Your task to perform on an android device: Go to calendar. Show me events next week Image 0: 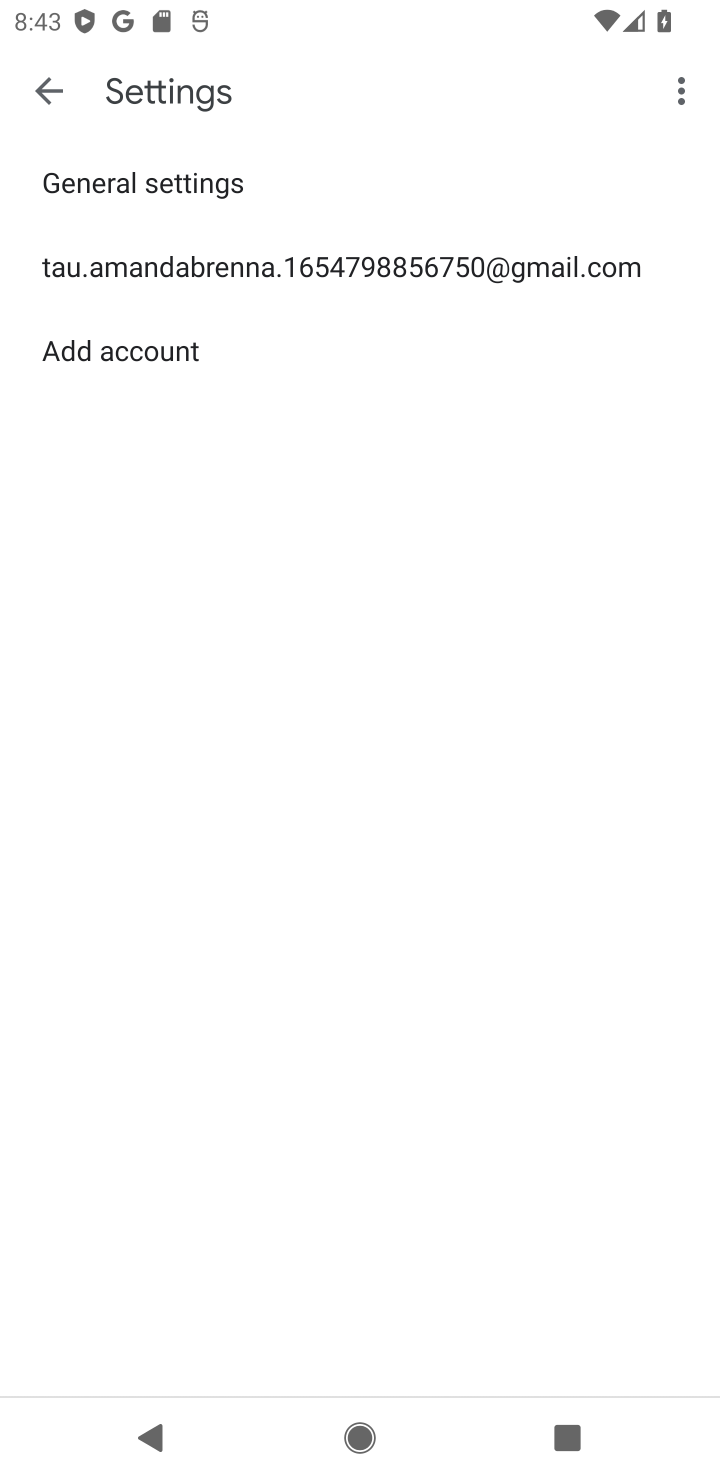
Step 0: press back button
Your task to perform on an android device: Go to calendar. Show me events next week Image 1: 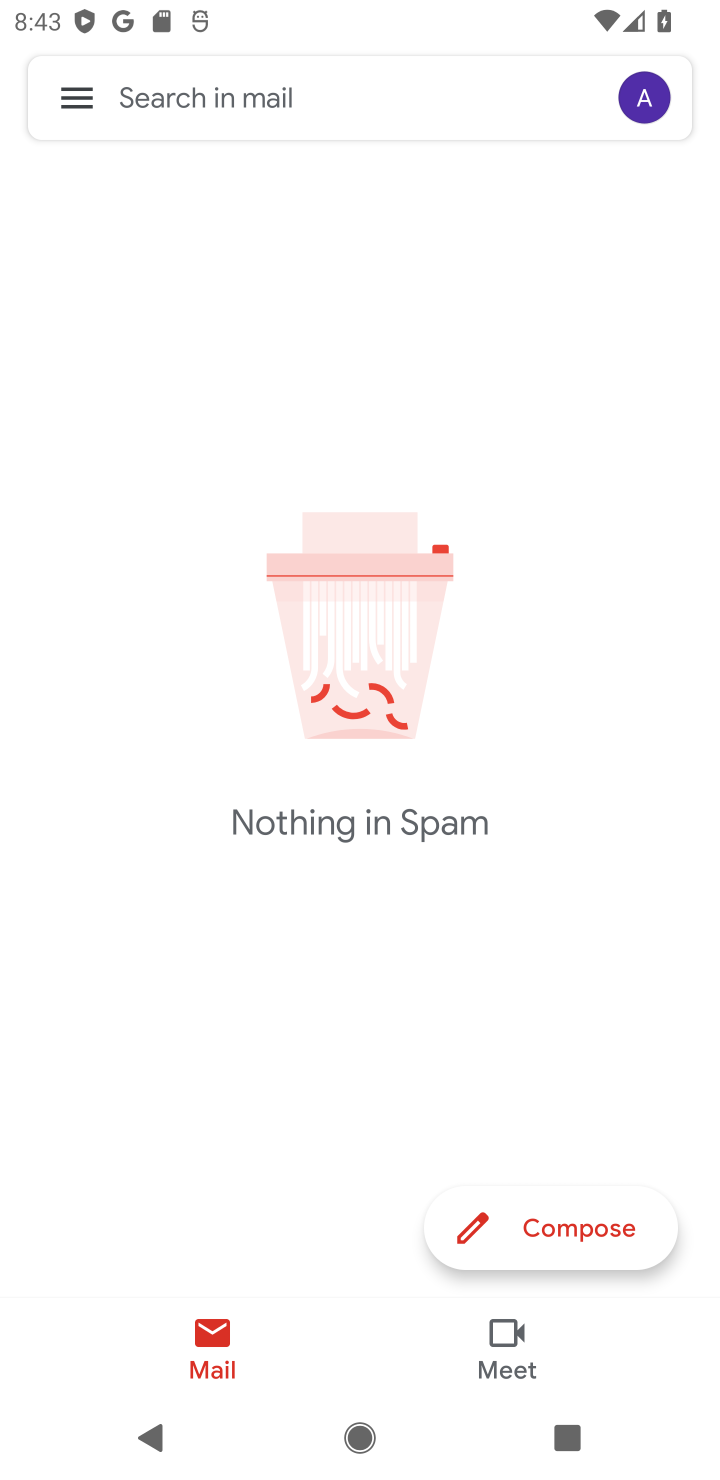
Step 1: press back button
Your task to perform on an android device: Go to calendar. Show me events next week Image 2: 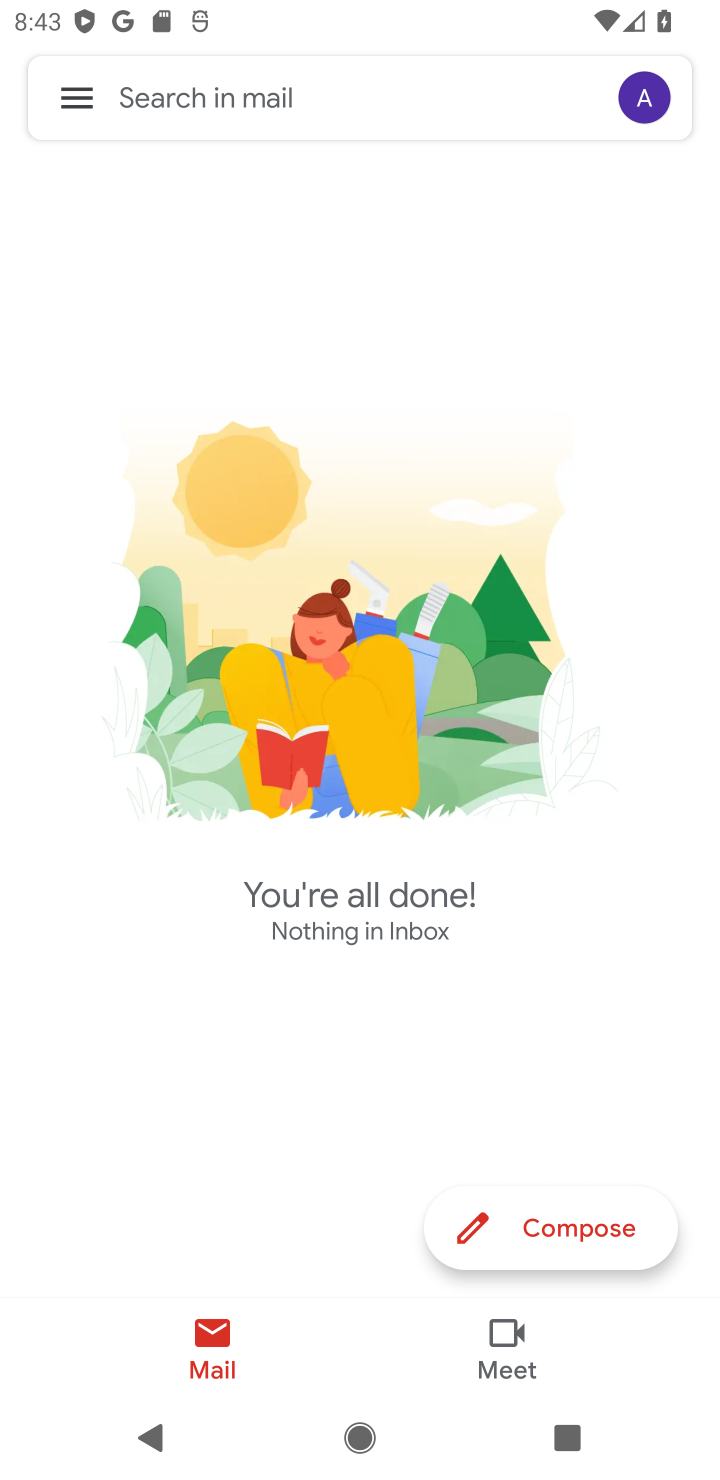
Step 2: press home button
Your task to perform on an android device: Go to calendar. Show me events next week Image 3: 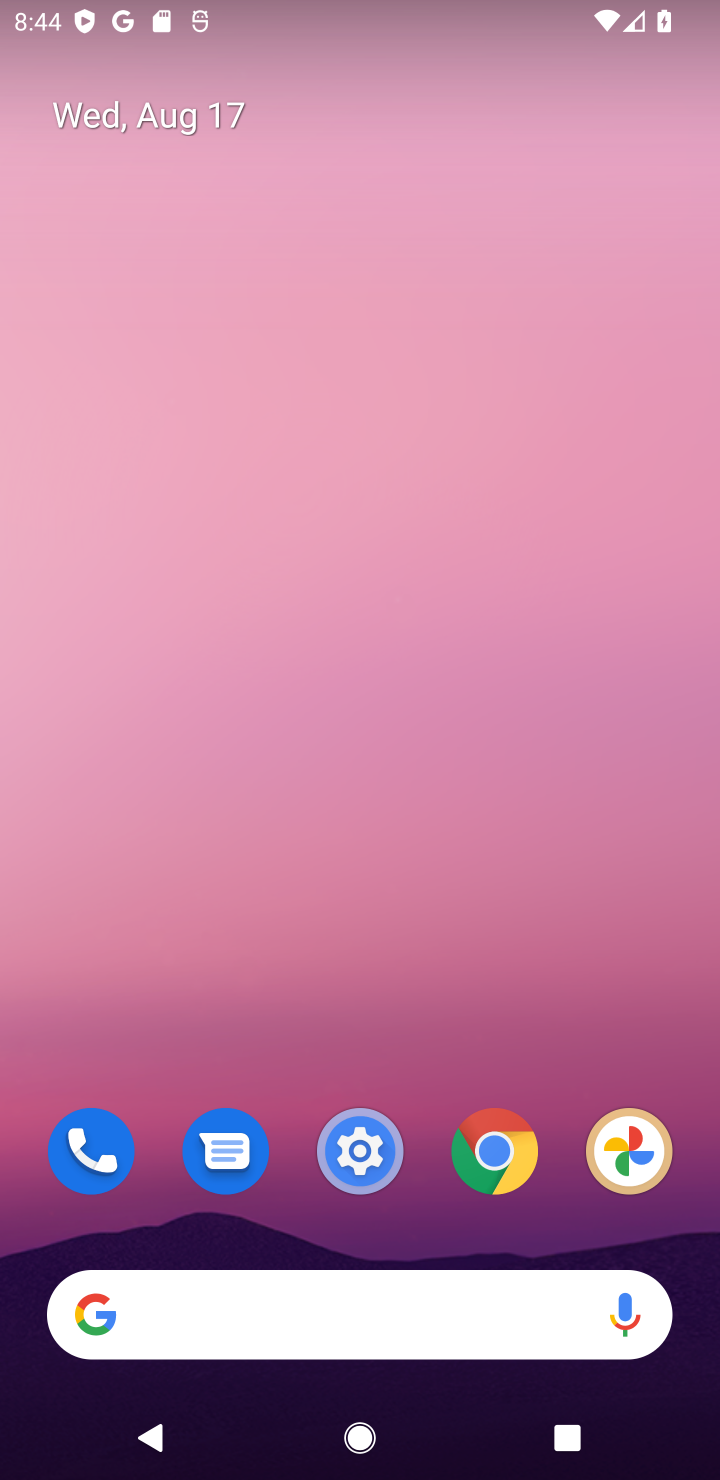
Step 3: drag from (352, 1186) to (351, 212)
Your task to perform on an android device: Go to calendar. Show me events next week Image 4: 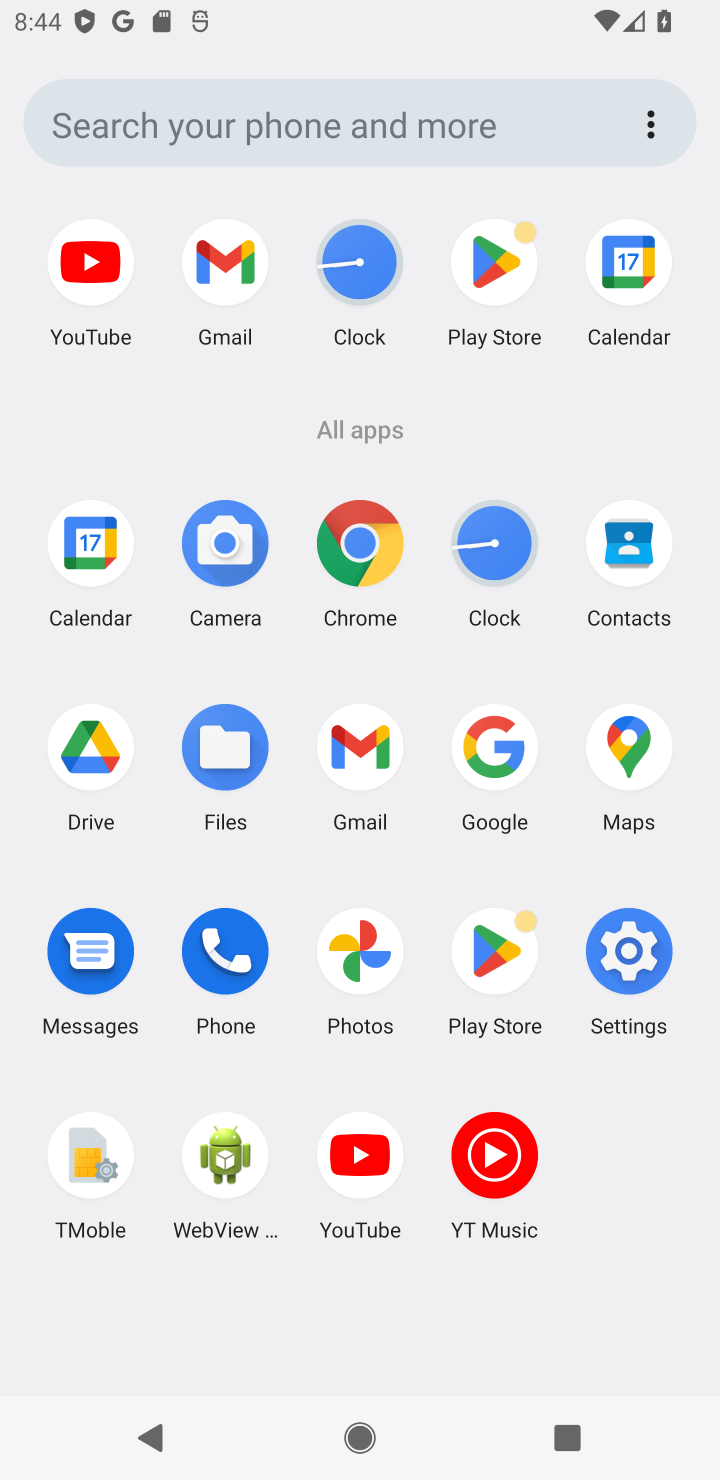
Step 4: click (95, 551)
Your task to perform on an android device: Go to calendar. Show me events next week Image 5: 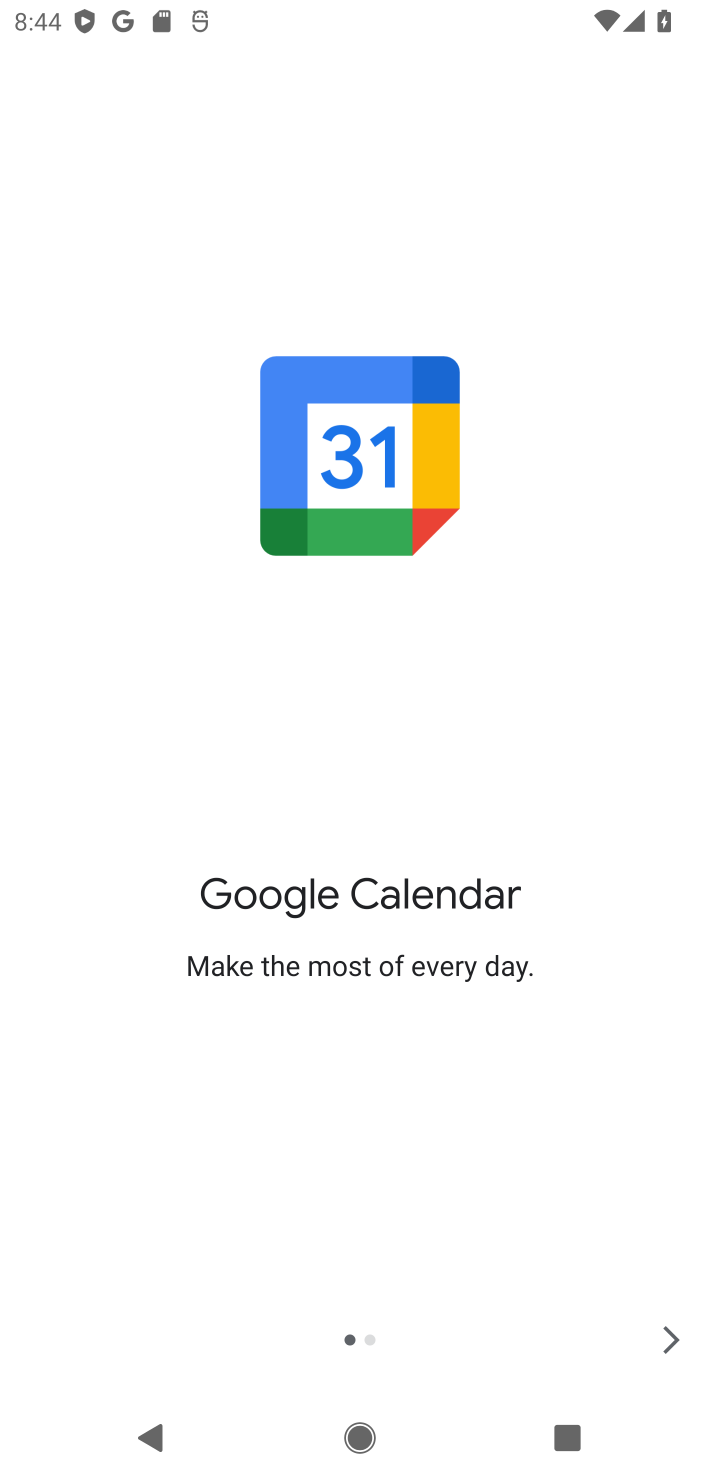
Step 5: click (665, 1347)
Your task to perform on an android device: Go to calendar. Show me events next week Image 6: 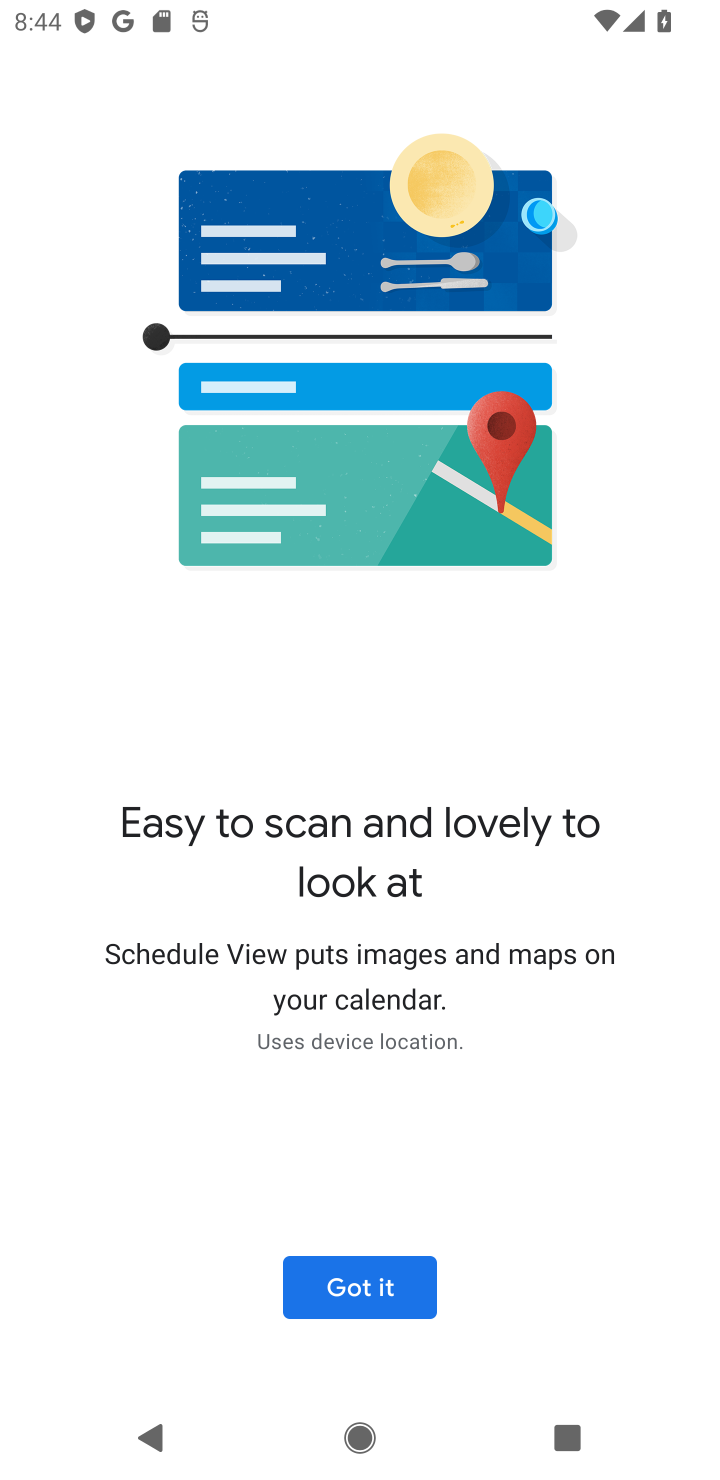
Step 6: click (339, 1300)
Your task to perform on an android device: Go to calendar. Show me events next week Image 7: 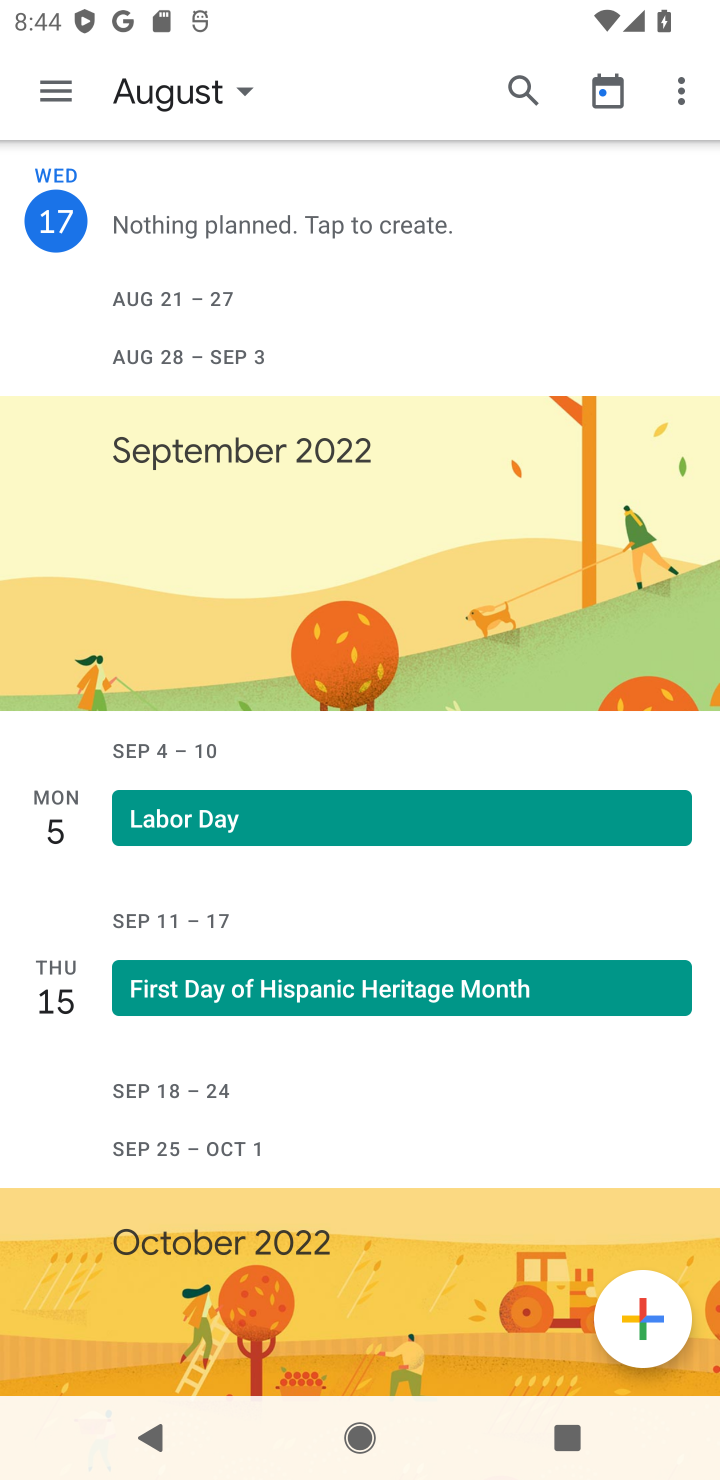
Step 7: click (41, 82)
Your task to perform on an android device: Go to calendar. Show me events next week Image 8: 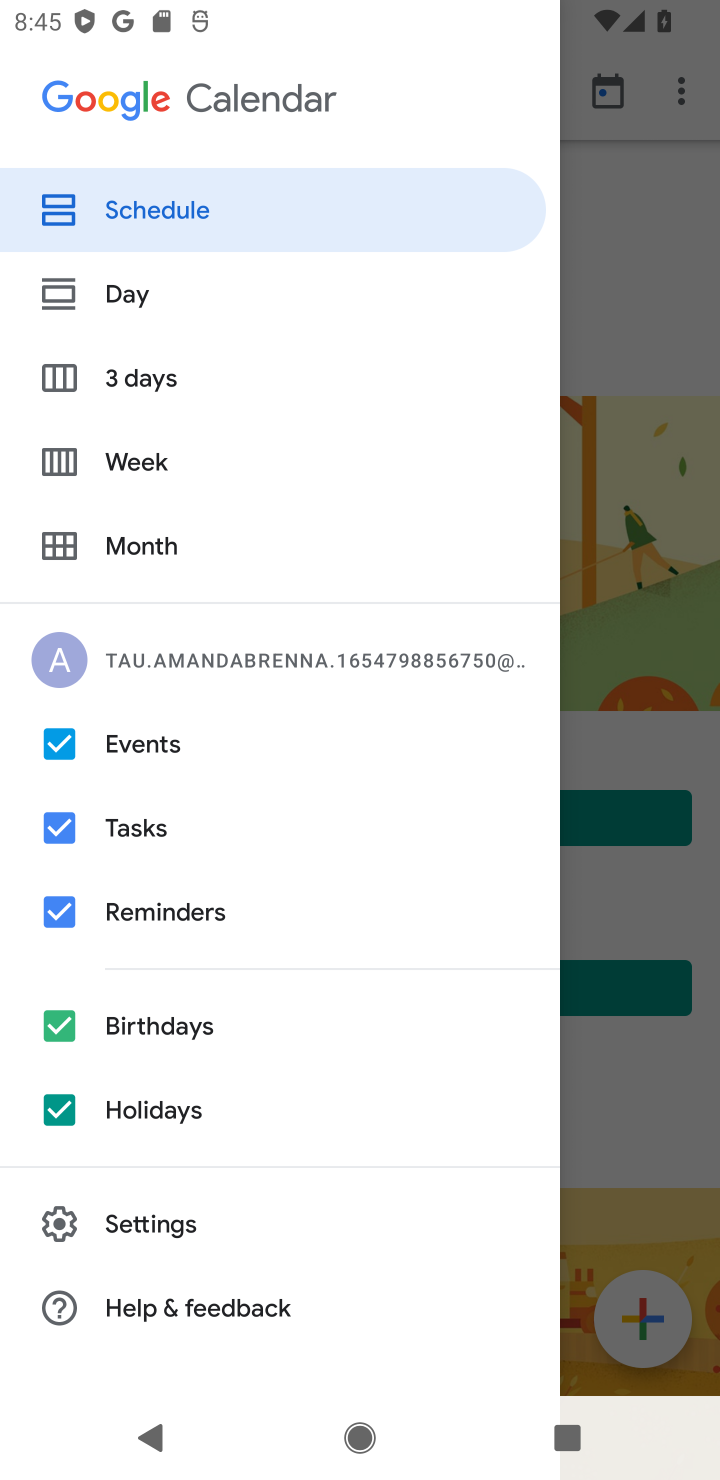
Step 8: click (120, 458)
Your task to perform on an android device: Go to calendar. Show me events next week Image 9: 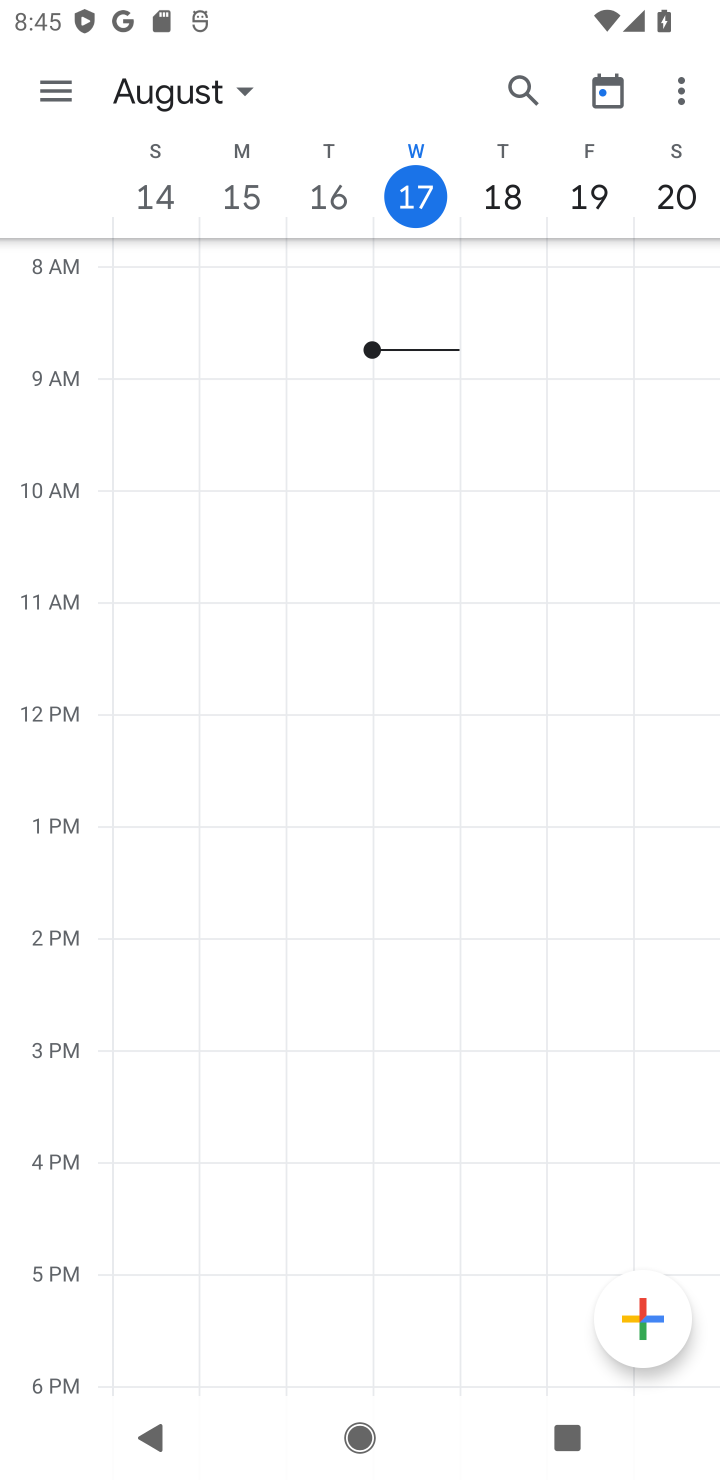
Step 9: click (199, 95)
Your task to perform on an android device: Go to calendar. Show me events next week Image 10: 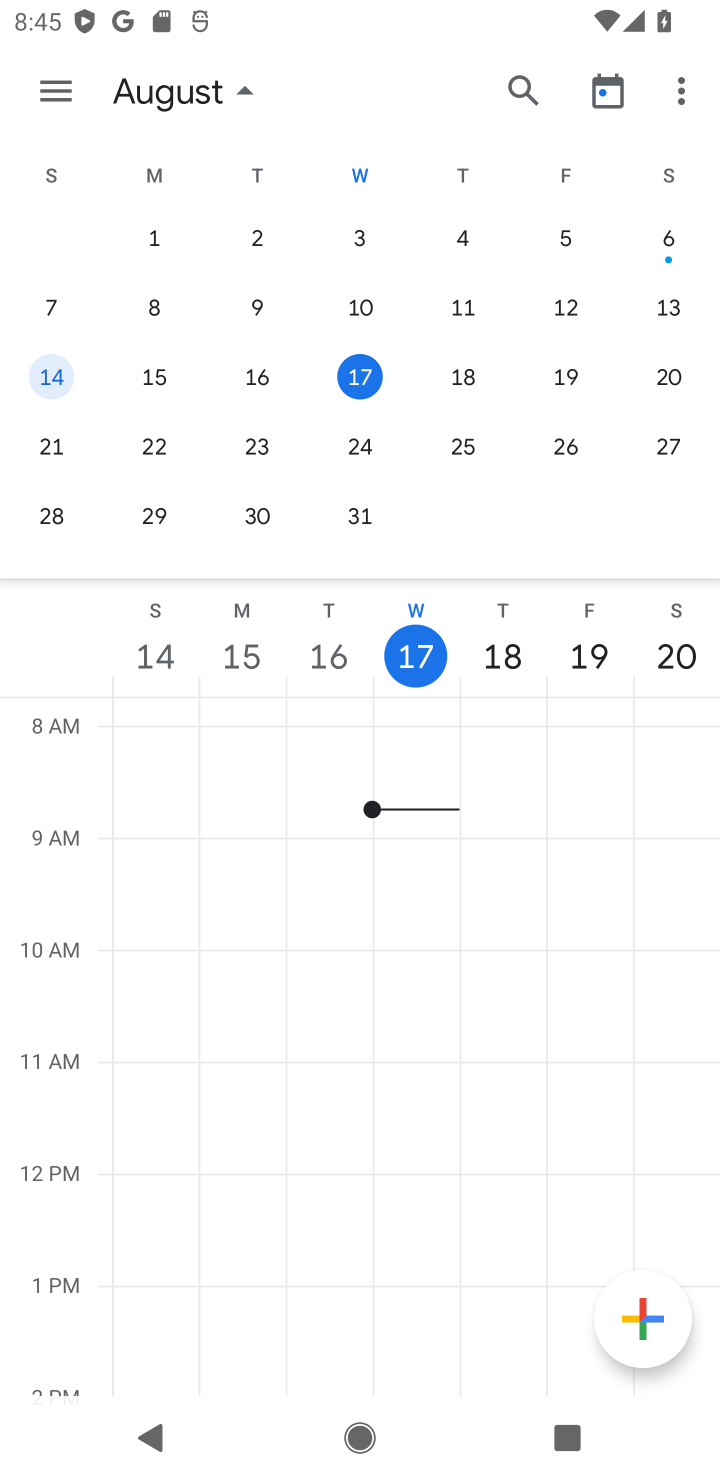
Step 10: click (44, 437)
Your task to perform on an android device: Go to calendar. Show me events next week Image 11: 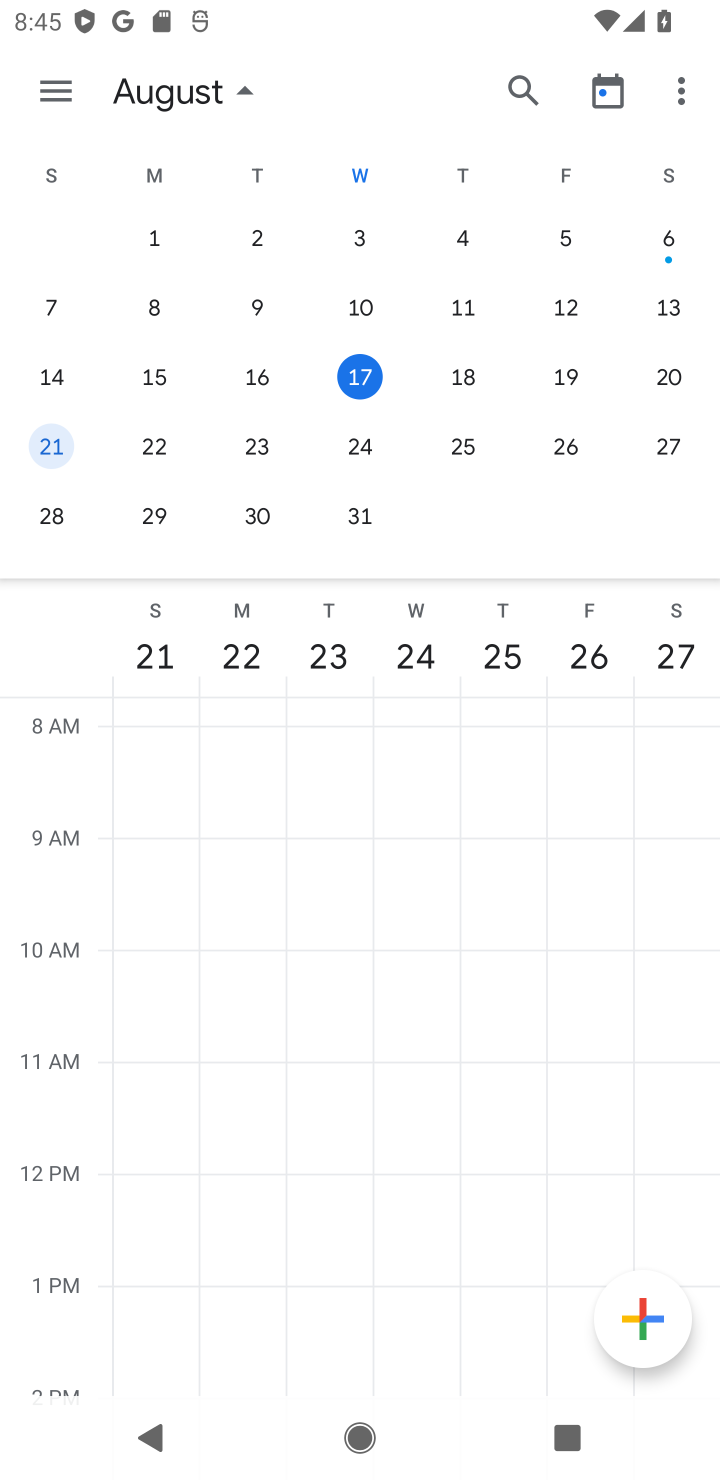
Step 11: task complete